Your task to perform on an android device: Open ESPN.com Image 0: 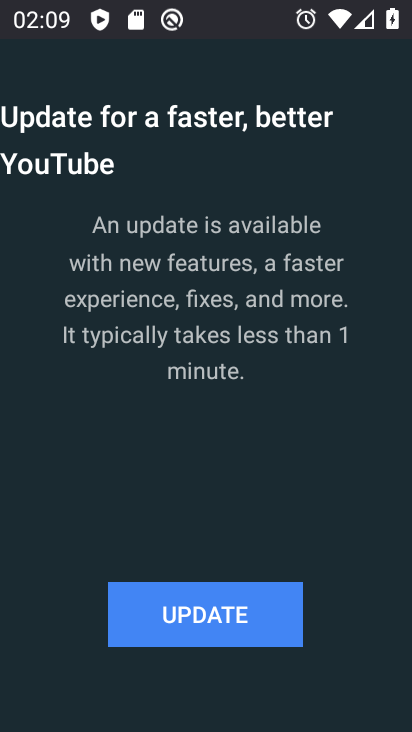
Step 0: press home button
Your task to perform on an android device: Open ESPN.com Image 1: 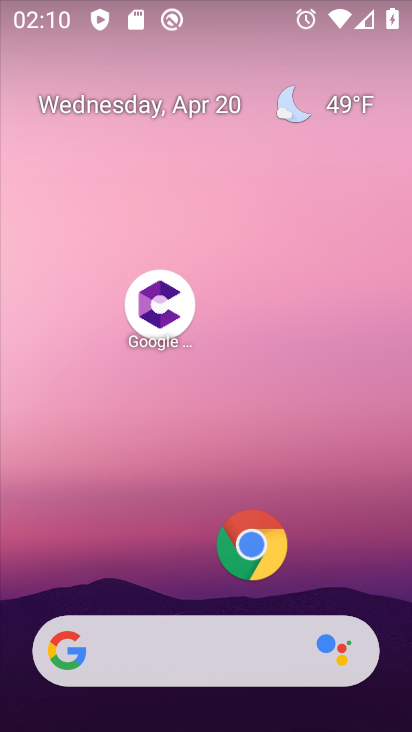
Step 1: click (253, 544)
Your task to perform on an android device: Open ESPN.com Image 2: 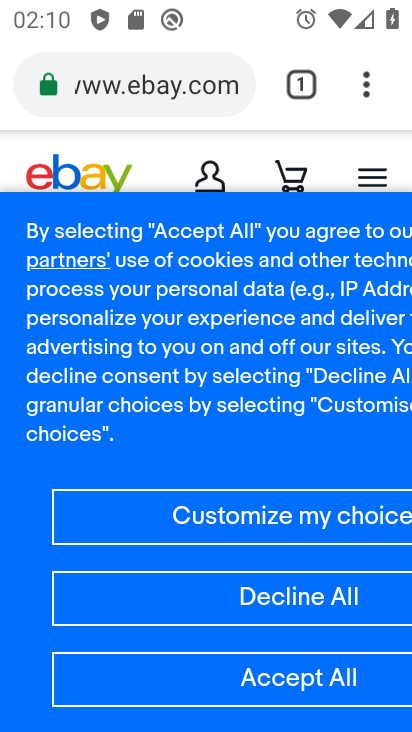
Step 2: click (193, 91)
Your task to perform on an android device: Open ESPN.com Image 3: 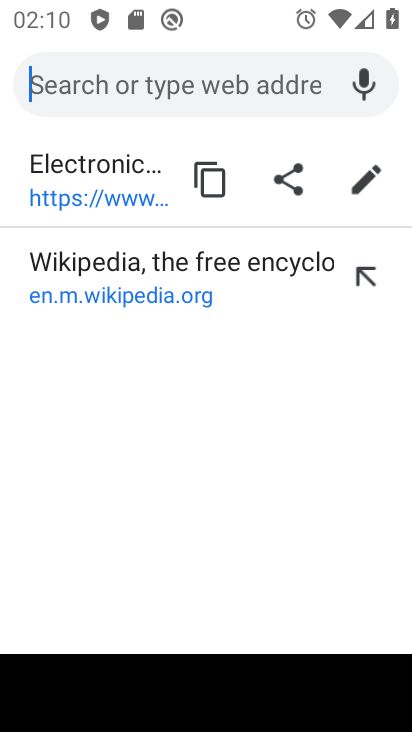
Step 3: type "ESPN.com"
Your task to perform on an android device: Open ESPN.com Image 4: 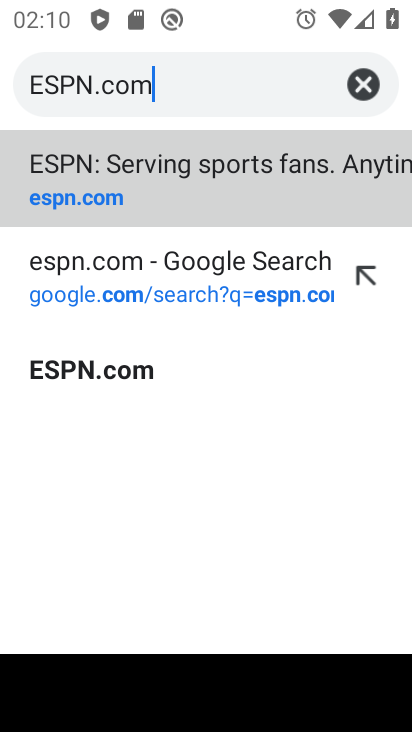
Step 4: type ""
Your task to perform on an android device: Open ESPN.com Image 5: 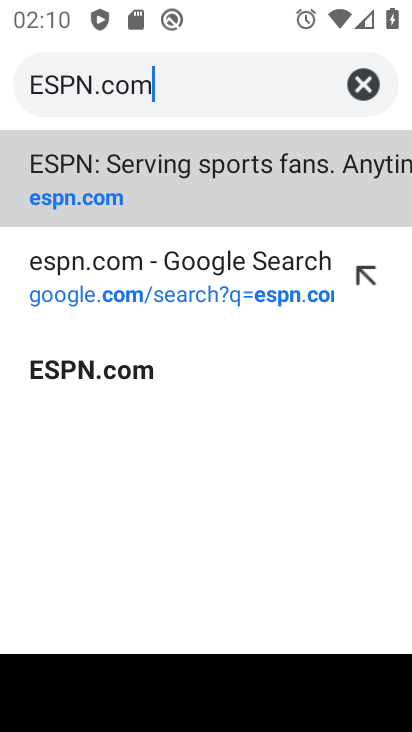
Step 5: click (126, 171)
Your task to perform on an android device: Open ESPN.com Image 6: 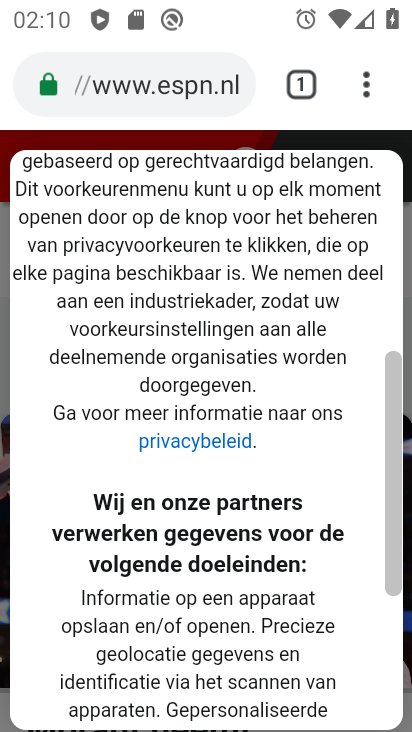
Step 6: task complete